Your task to perform on an android device: Go to Google maps Image 0: 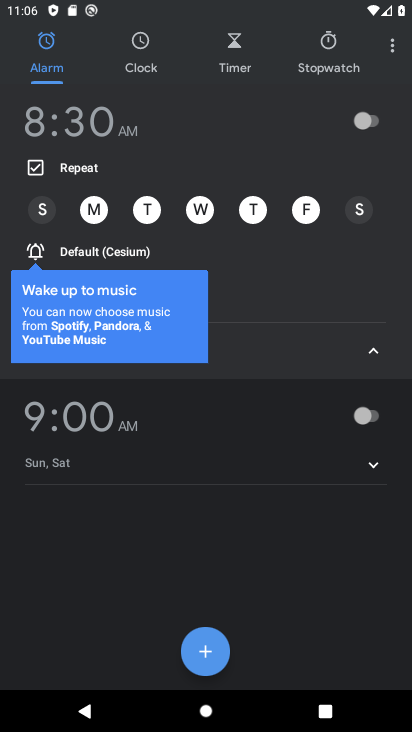
Step 0: press home button
Your task to perform on an android device: Go to Google maps Image 1: 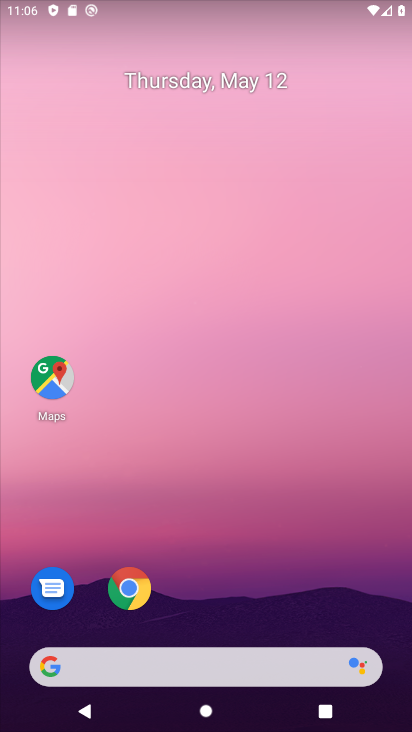
Step 1: drag from (212, 592) to (290, 318)
Your task to perform on an android device: Go to Google maps Image 2: 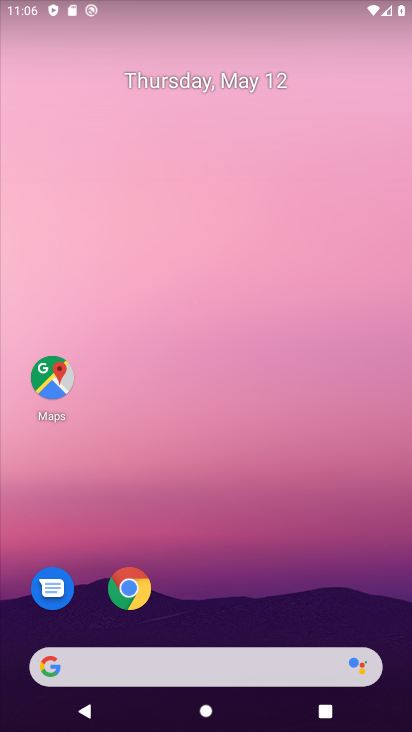
Step 2: click (53, 378)
Your task to perform on an android device: Go to Google maps Image 3: 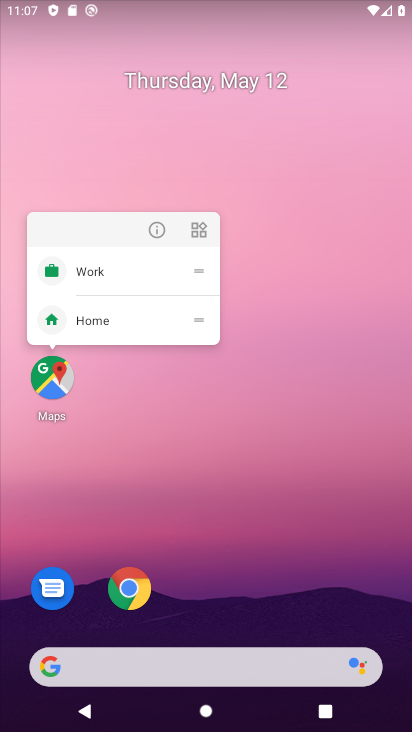
Step 3: click (158, 236)
Your task to perform on an android device: Go to Google maps Image 4: 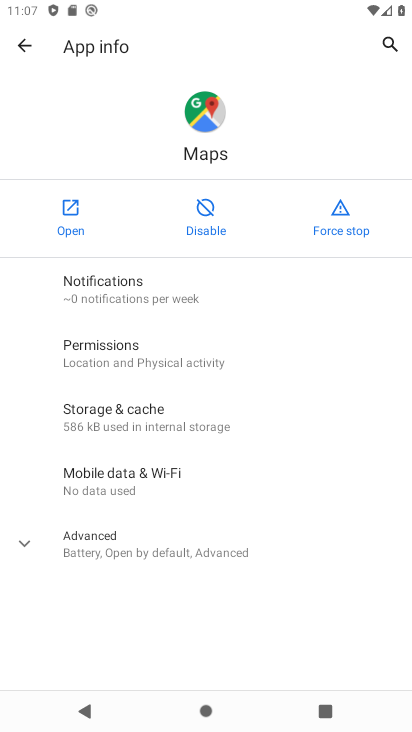
Step 4: click (61, 241)
Your task to perform on an android device: Go to Google maps Image 5: 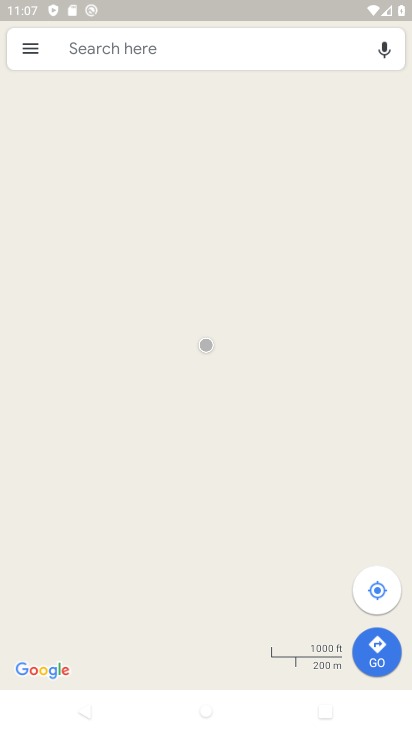
Step 5: task complete